Your task to perform on an android device: delete the emails in spam in the gmail app Image 0: 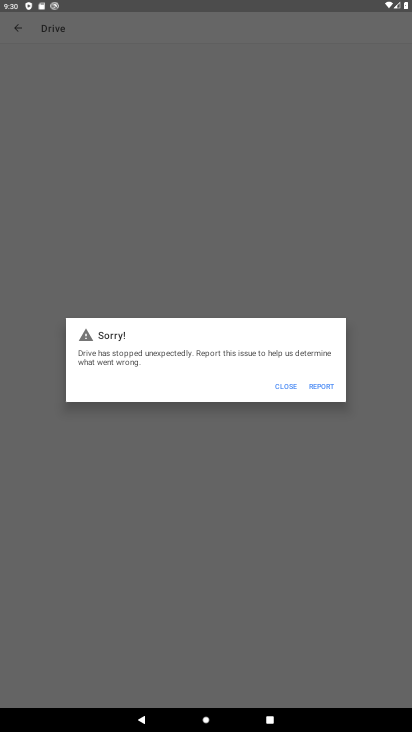
Step 0: press home button
Your task to perform on an android device: delete the emails in spam in the gmail app Image 1: 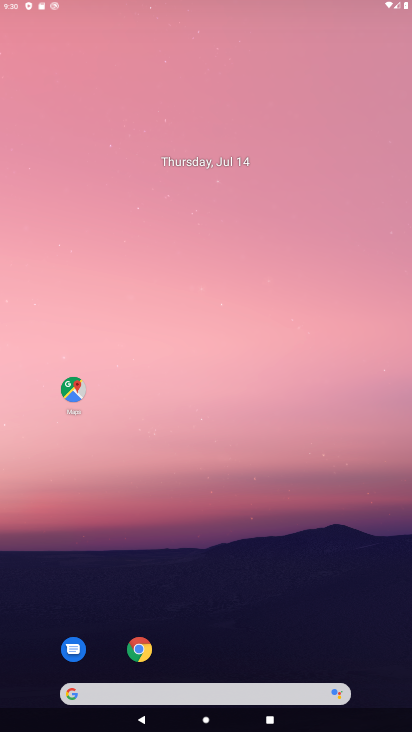
Step 1: drag from (228, 640) to (237, 189)
Your task to perform on an android device: delete the emails in spam in the gmail app Image 2: 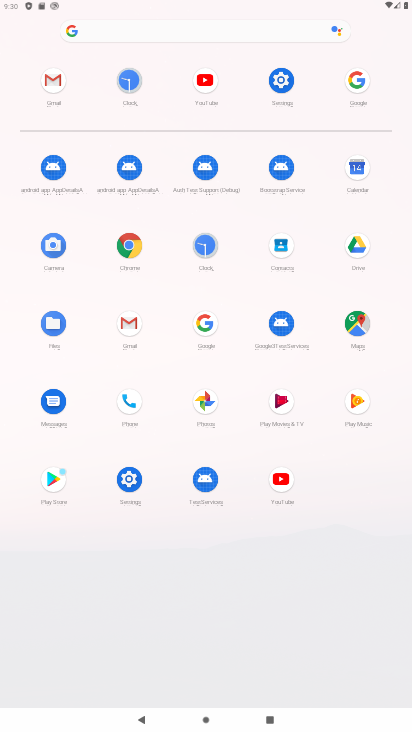
Step 2: click (53, 96)
Your task to perform on an android device: delete the emails in spam in the gmail app Image 3: 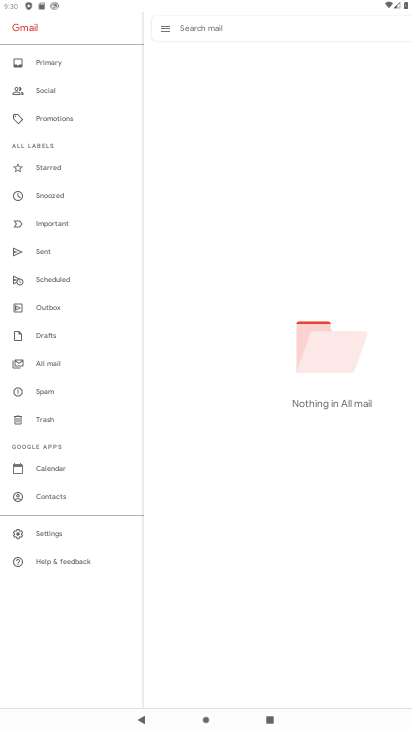
Step 3: click (59, 387)
Your task to perform on an android device: delete the emails in spam in the gmail app Image 4: 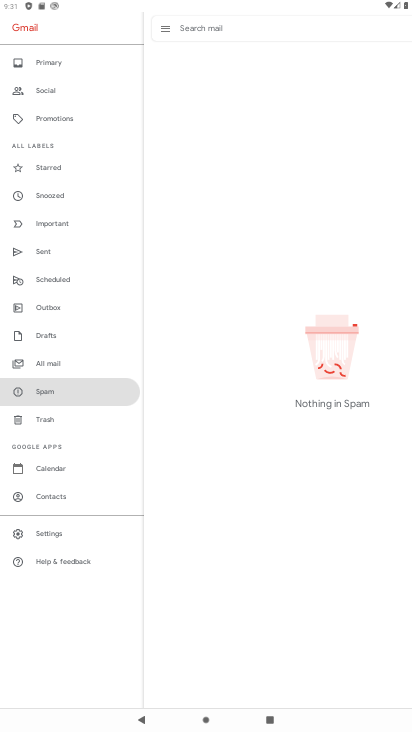
Step 4: task complete